Your task to perform on an android device: What's the weather like in Beijing? Image 0: 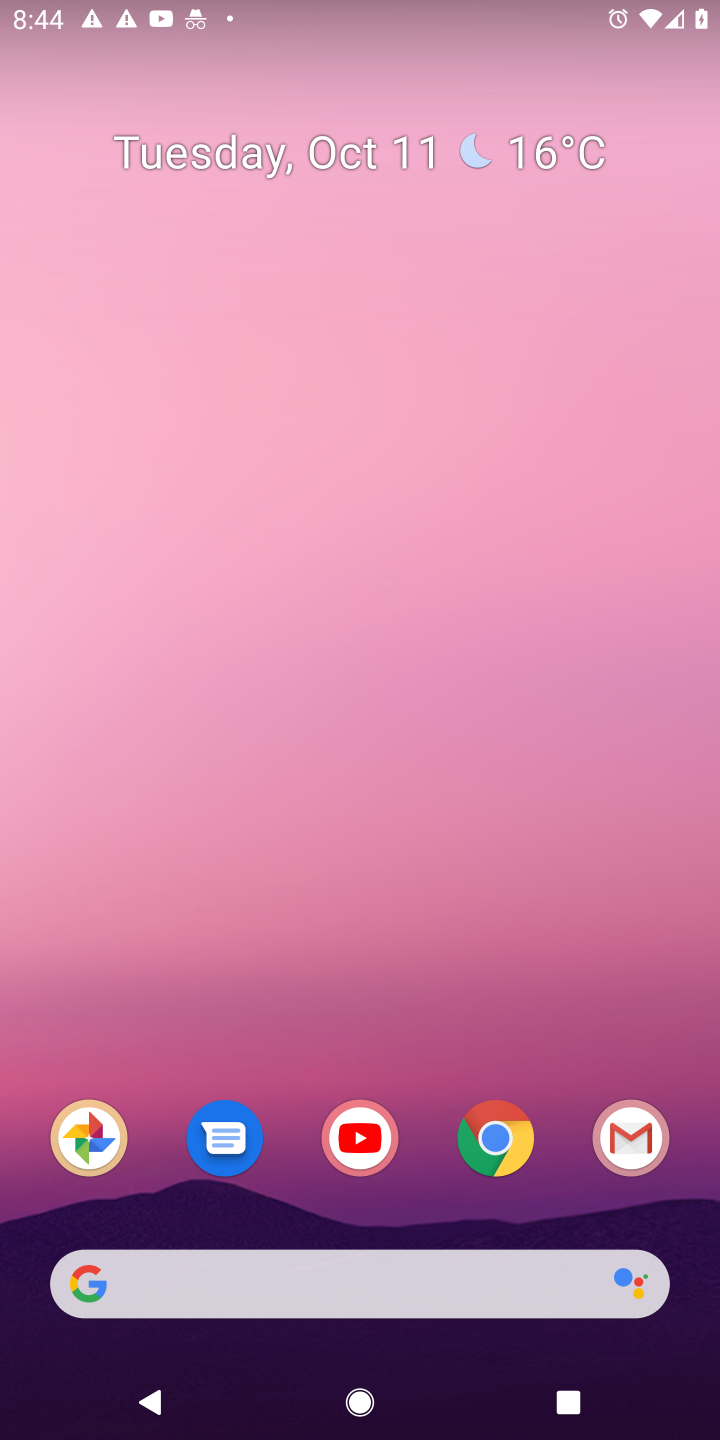
Step 0: click (354, 1270)
Your task to perform on an android device: What's the weather like in Beijing? Image 1: 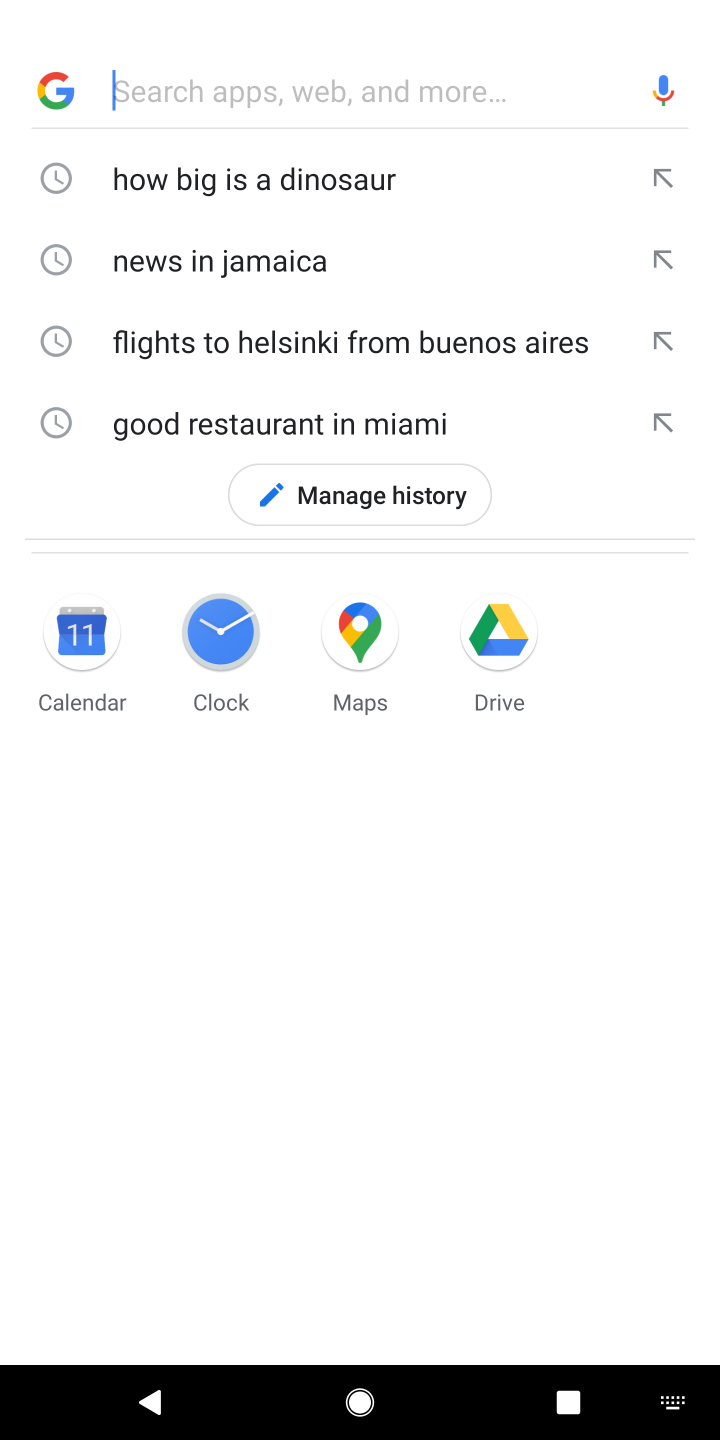
Step 1: type "whats the weather like in beijing"
Your task to perform on an android device: What's the weather like in Beijing? Image 2: 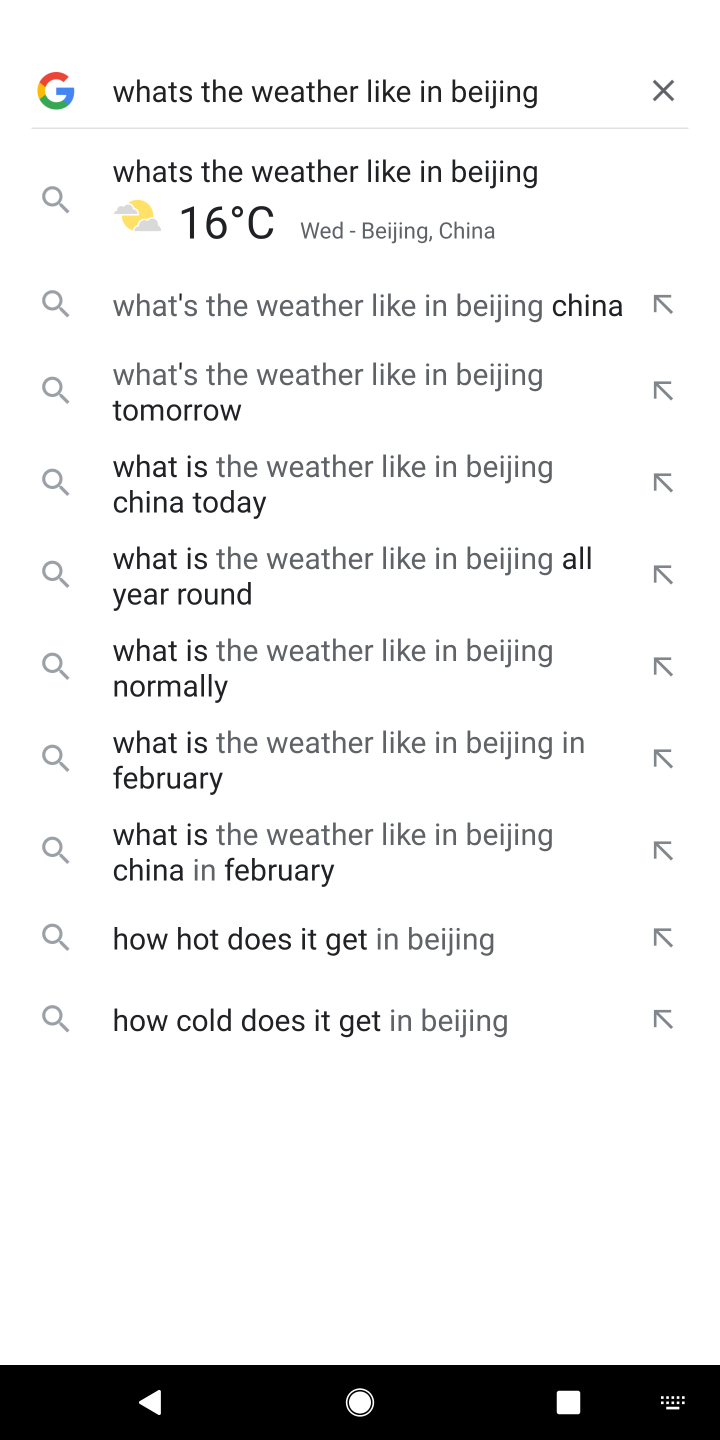
Step 2: click (418, 173)
Your task to perform on an android device: What's the weather like in Beijing? Image 3: 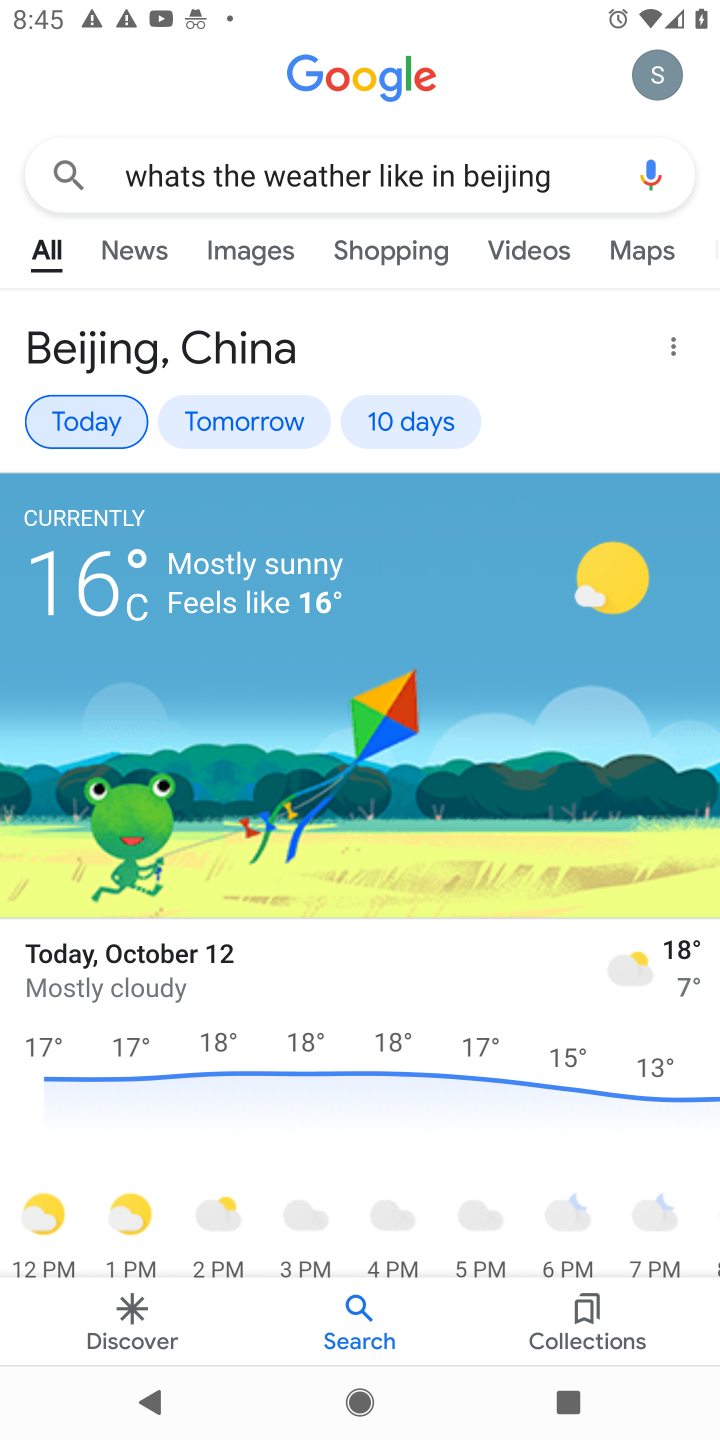
Step 3: task complete